Your task to perform on an android device: allow cookies in the chrome app Image 0: 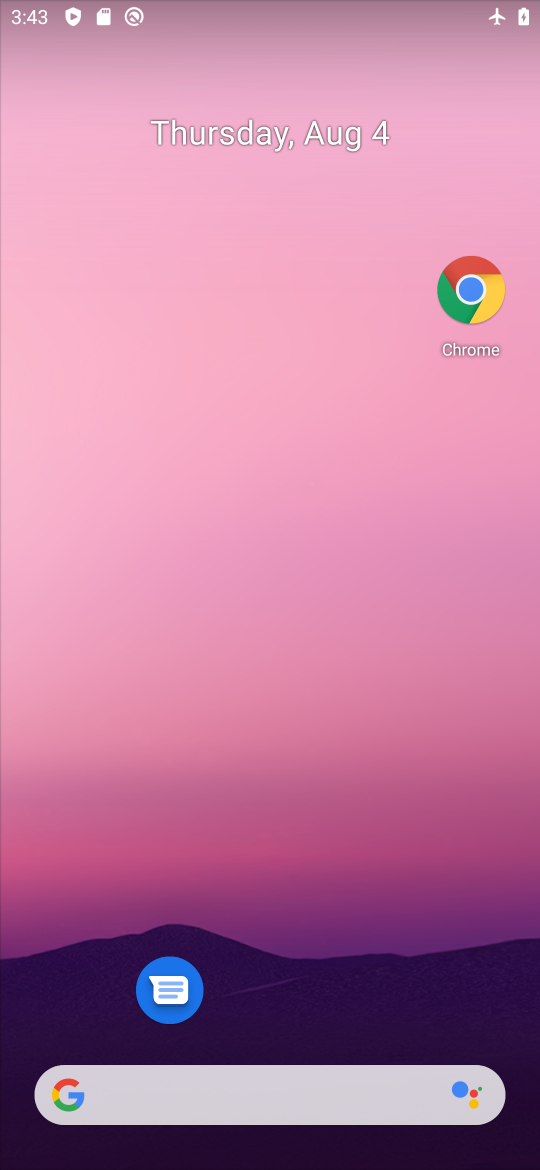
Step 0: task complete